Your task to perform on an android device: Open calendar and show me the second week of next month Image 0: 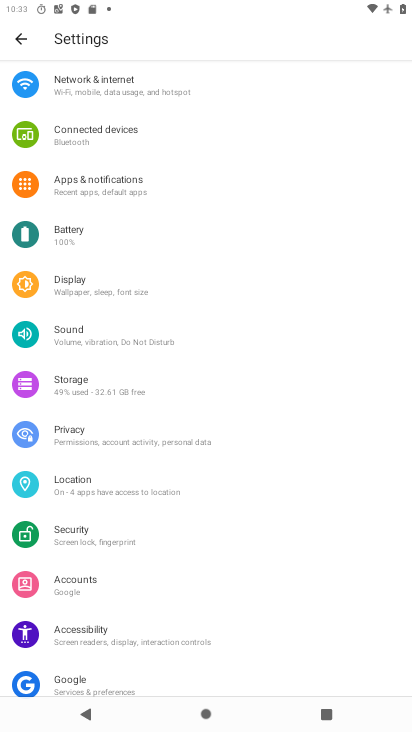
Step 0: press home button
Your task to perform on an android device: Open calendar and show me the second week of next month Image 1: 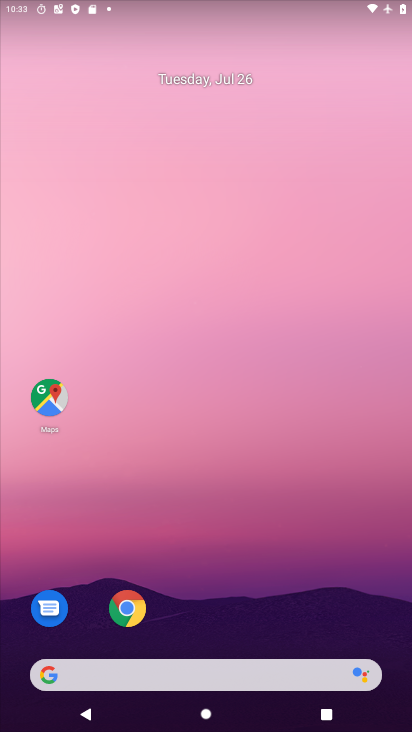
Step 1: drag from (201, 620) to (241, 113)
Your task to perform on an android device: Open calendar and show me the second week of next month Image 2: 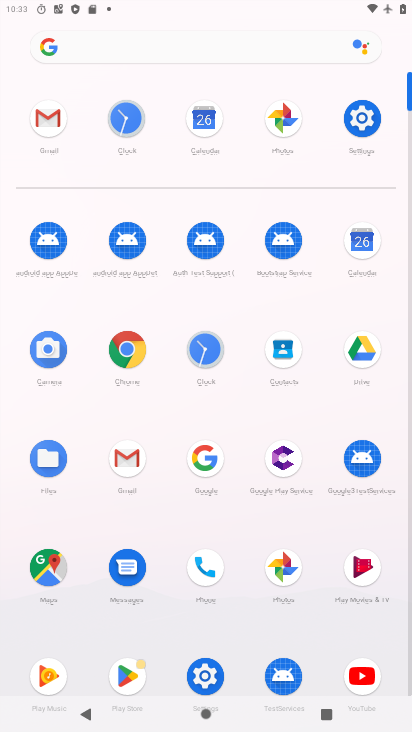
Step 2: click (373, 246)
Your task to perform on an android device: Open calendar and show me the second week of next month Image 3: 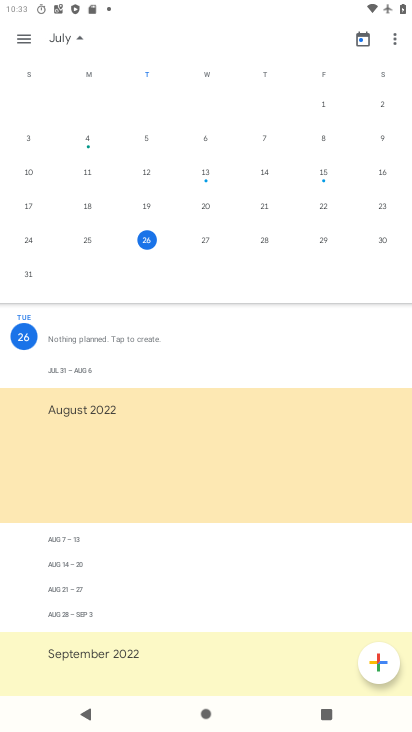
Step 3: drag from (357, 187) to (3, 317)
Your task to perform on an android device: Open calendar and show me the second week of next month Image 4: 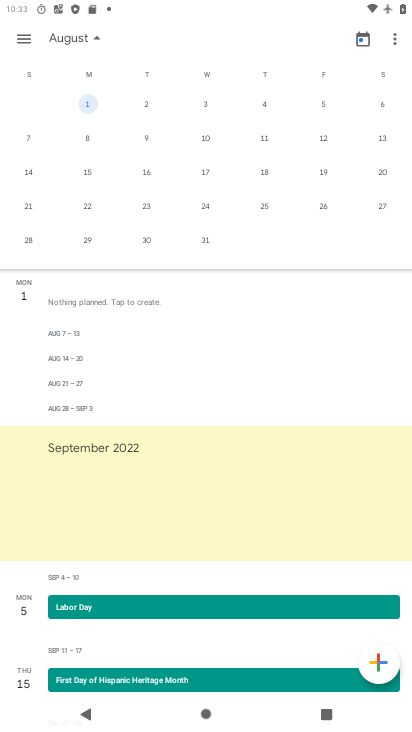
Step 4: click (29, 143)
Your task to perform on an android device: Open calendar and show me the second week of next month Image 5: 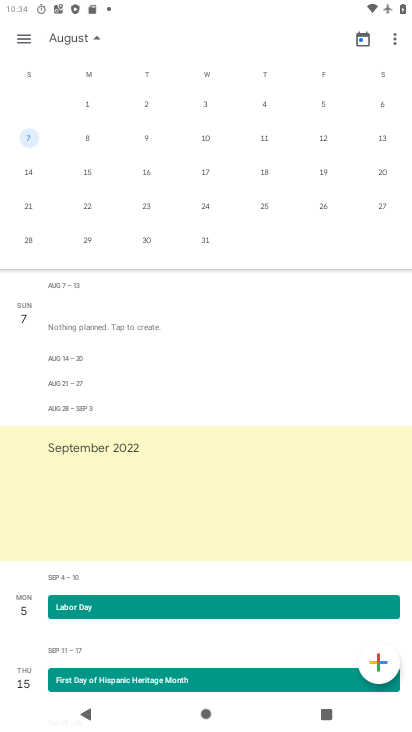
Step 5: task complete